Your task to perform on an android device: delete browsing data in the chrome app Image 0: 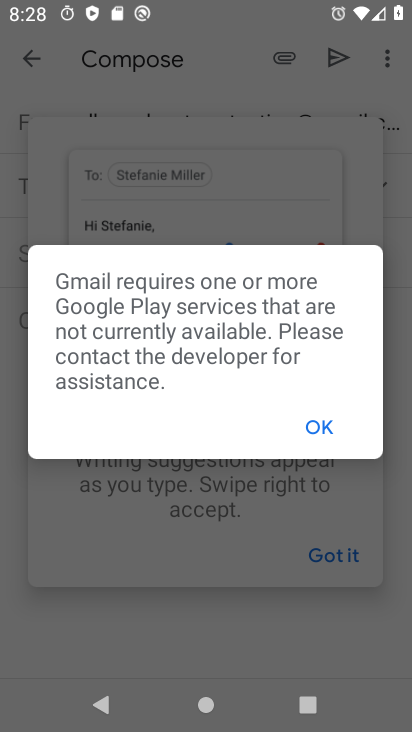
Step 0: press home button
Your task to perform on an android device: delete browsing data in the chrome app Image 1: 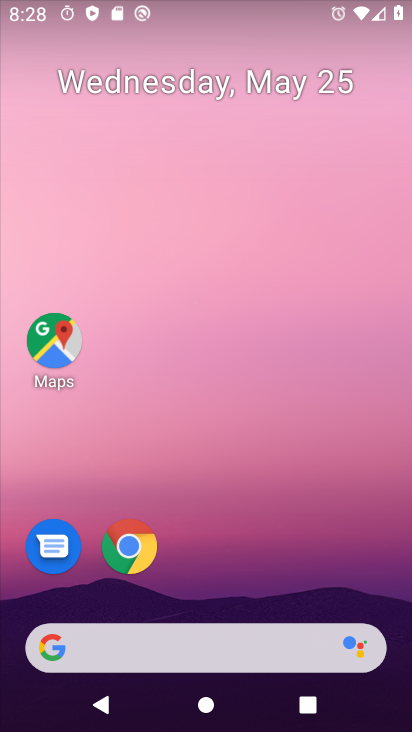
Step 1: click (234, 591)
Your task to perform on an android device: delete browsing data in the chrome app Image 2: 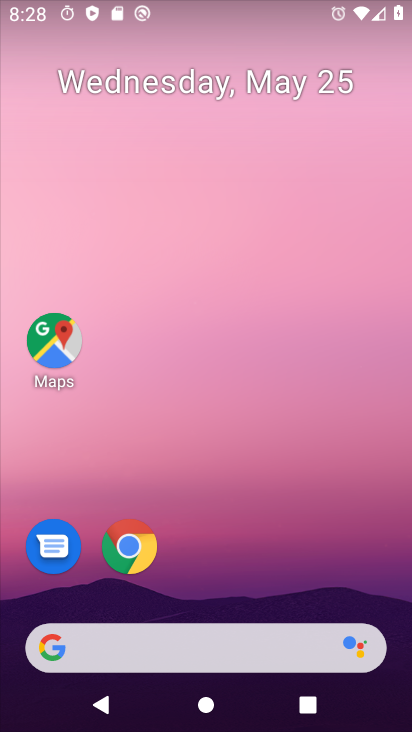
Step 2: drag from (245, 588) to (208, 1)
Your task to perform on an android device: delete browsing data in the chrome app Image 3: 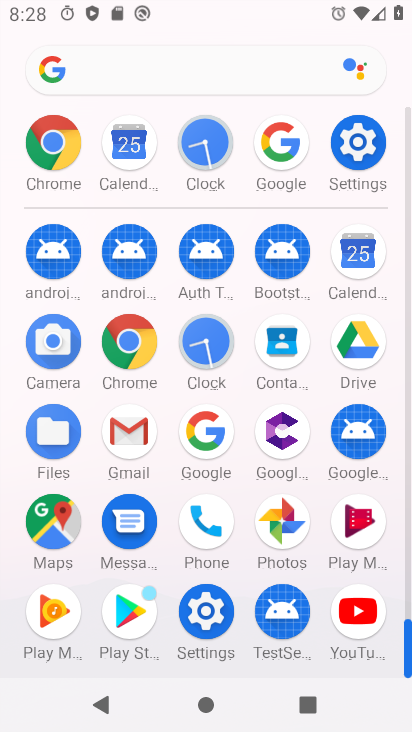
Step 3: click (48, 161)
Your task to perform on an android device: delete browsing data in the chrome app Image 4: 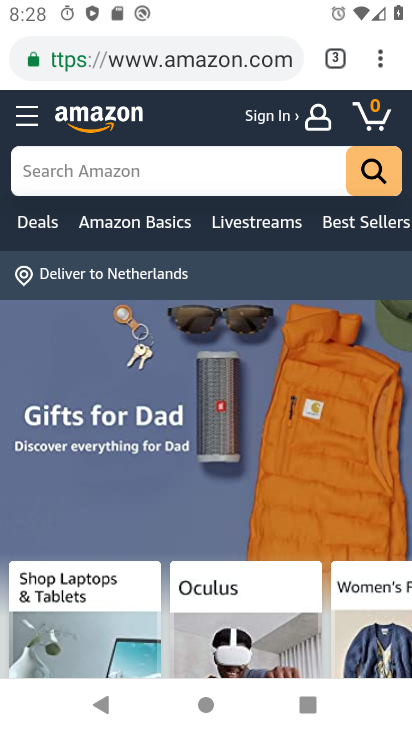
Step 4: click (380, 62)
Your task to perform on an android device: delete browsing data in the chrome app Image 5: 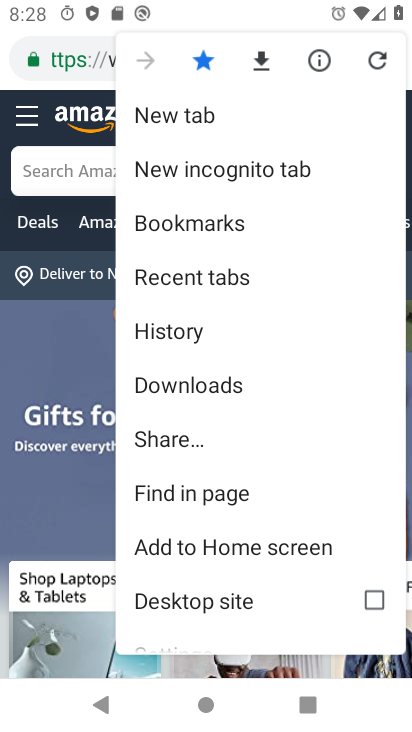
Step 5: click (169, 339)
Your task to perform on an android device: delete browsing data in the chrome app Image 6: 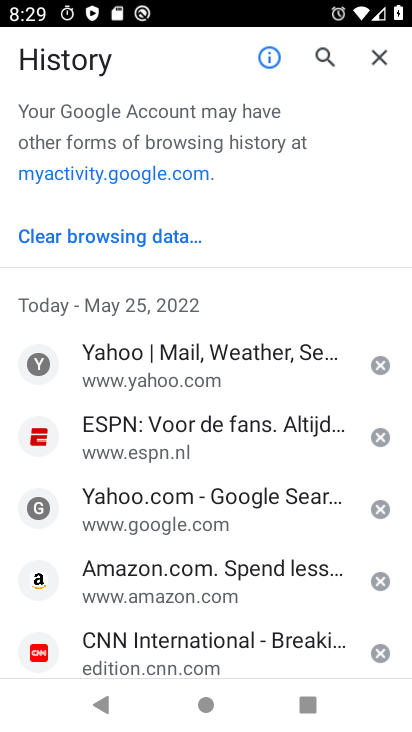
Step 6: click (128, 241)
Your task to perform on an android device: delete browsing data in the chrome app Image 7: 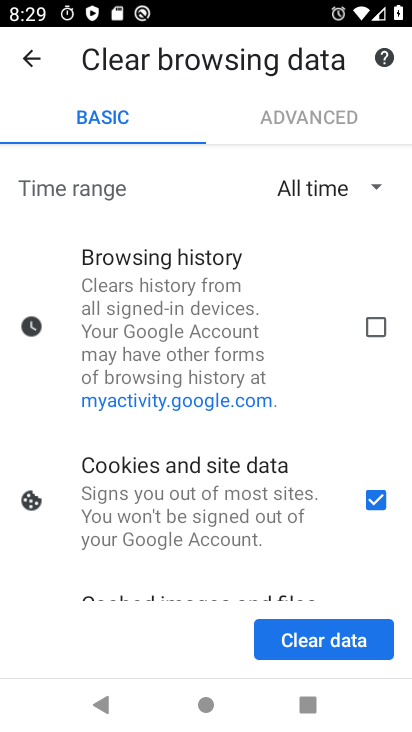
Step 7: click (371, 337)
Your task to perform on an android device: delete browsing data in the chrome app Image 8: 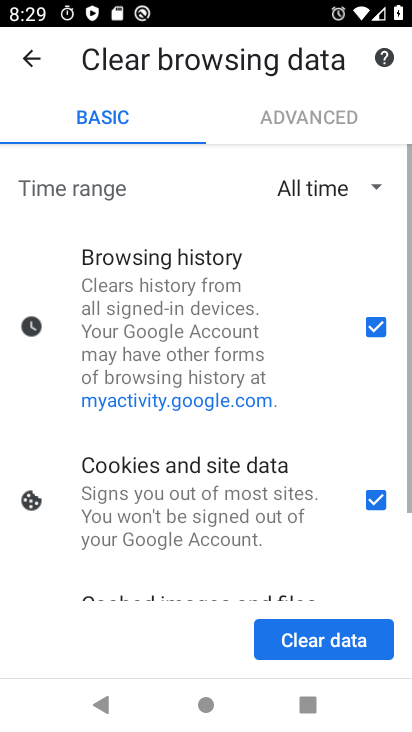
Step 8: drag from (250, 508) to (233, 201)
Your task to perform on an android device: delete browsing data in the chrome app Image 9: 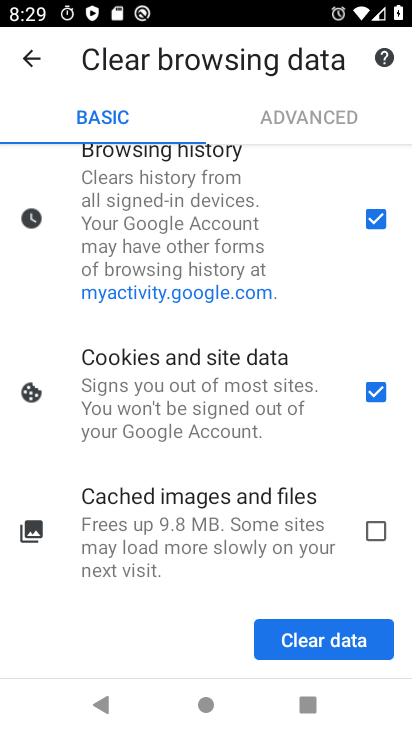
Step 9: click (388, 534)
Your task to perform on an android device: delete browsing data in the chrome app Image 10: 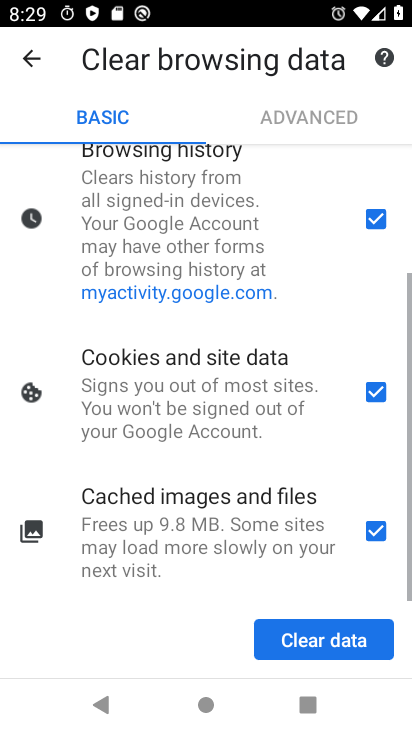
Step 10: click (307, 640)
Your task to perform on an android device: delete browsing data in the chrome app Image 11: 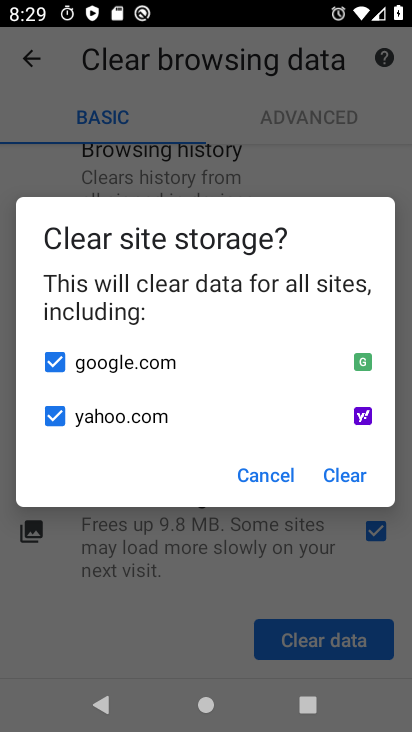
Step 11: click (329, 483)
Your task to perform on an android device: delete browsing data in the chrome app Image 12: 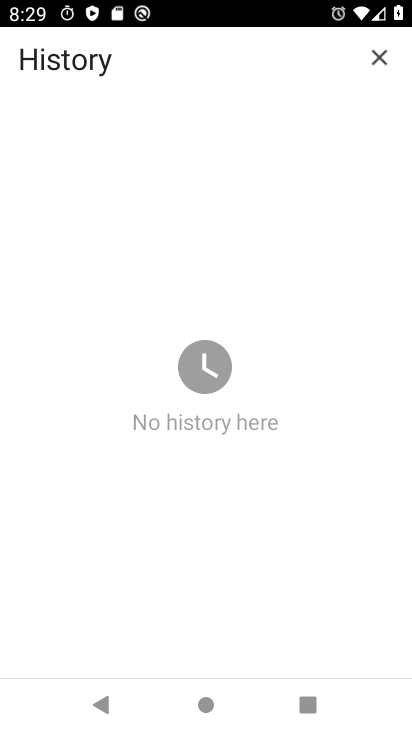
Step 12: task complete